Your task to perform on an android device: Open Reddit.com Image 0: 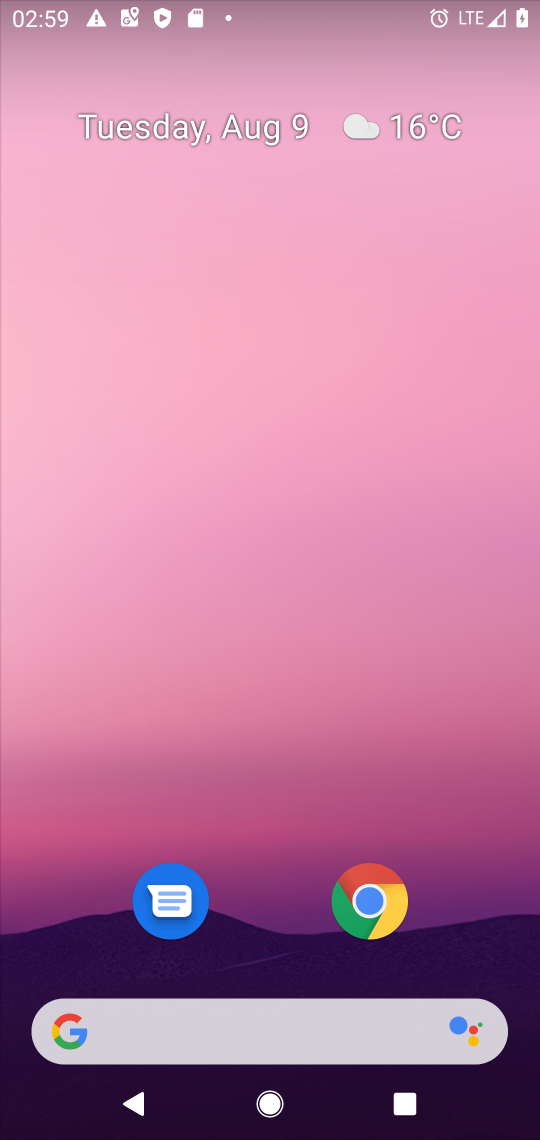
Step 0: click (375, 905)
Your task to perform on an android device: Open Reddit.com Image 1: 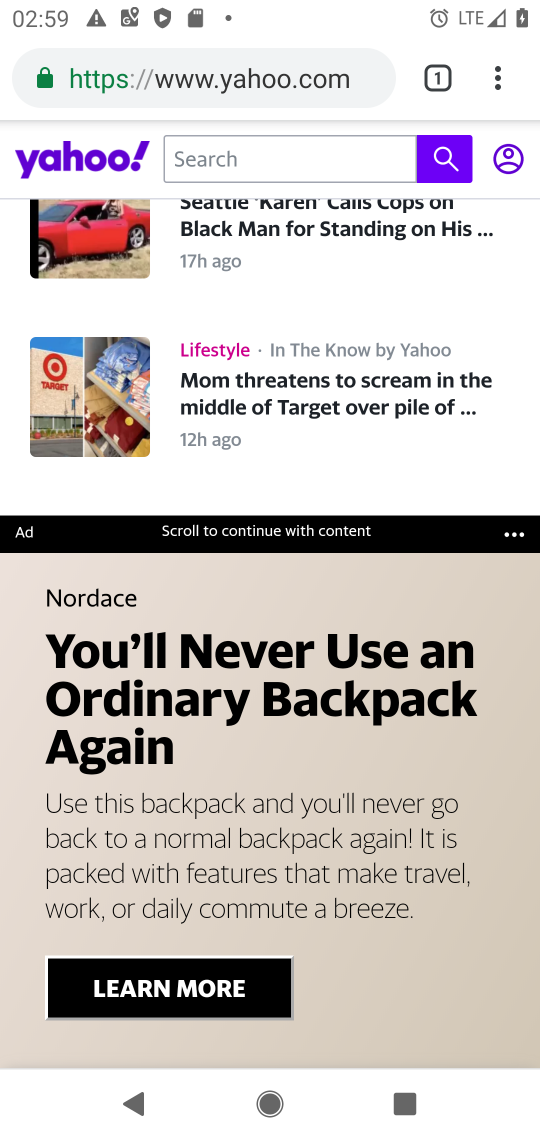
Step 1: click (366, 68)
Your task to perform on an android device: Open Reddit.com Image 2: 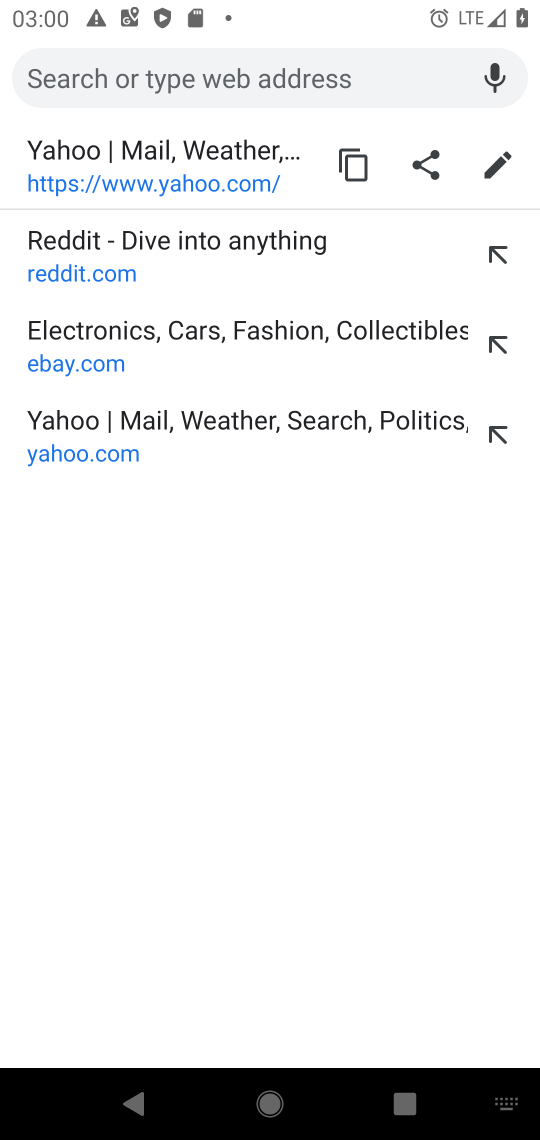
Step 2: type "reddit.com"
Your task to perform on an android device: Open Reddit.com Image 3: 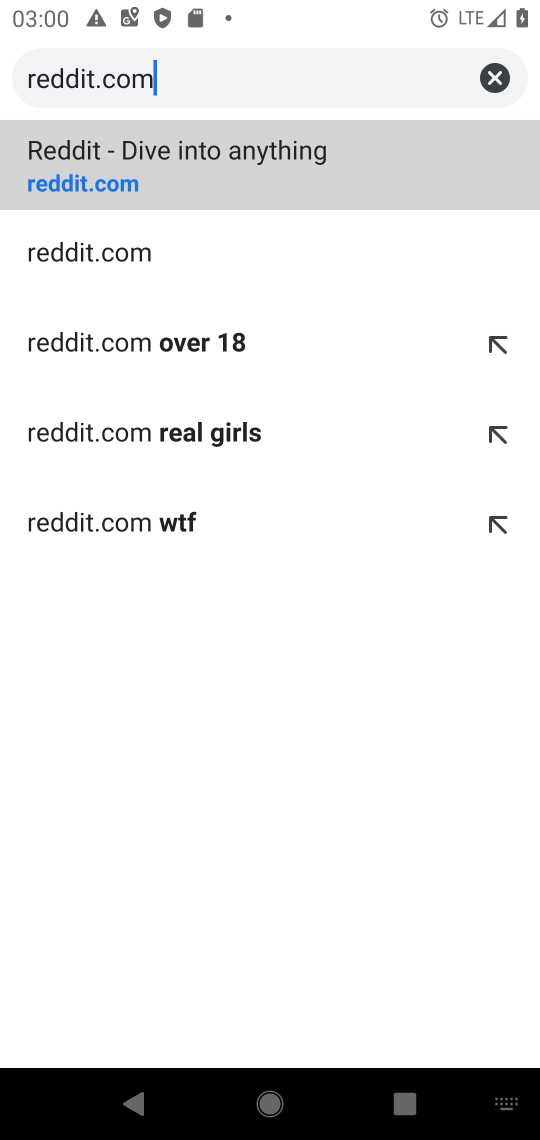
Step 3: click (109, 145)
Your task to perform on an android device: Open Reddit.com Image 4: 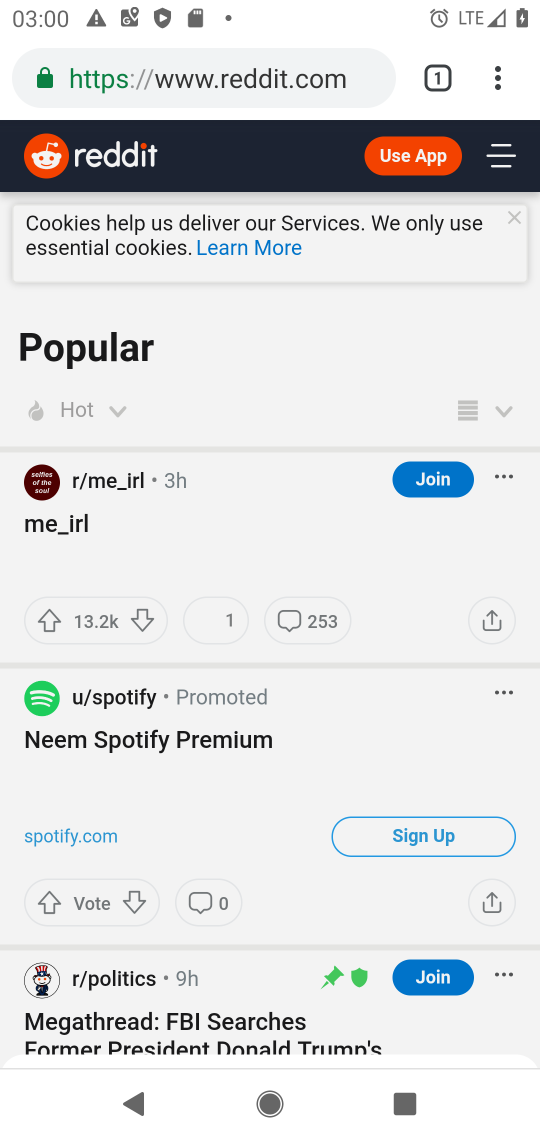
Step 4: task complete